Your task to perform on an android device: Open Chrome and go to settings Image 0: 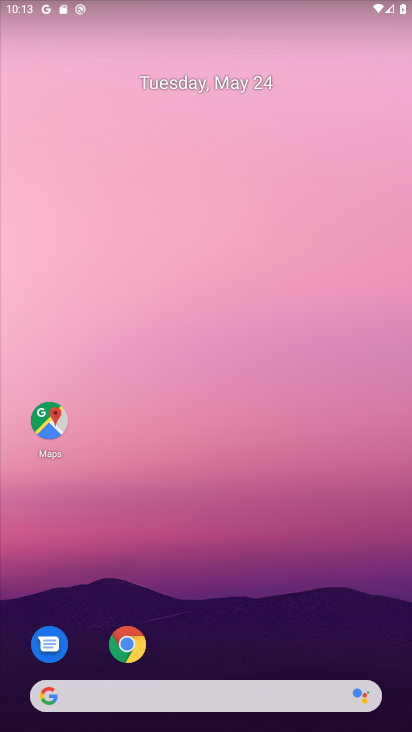
Step 0: click (128, 637)
Your task to perform on an android device: Open Chrome and go to settings Image 1: 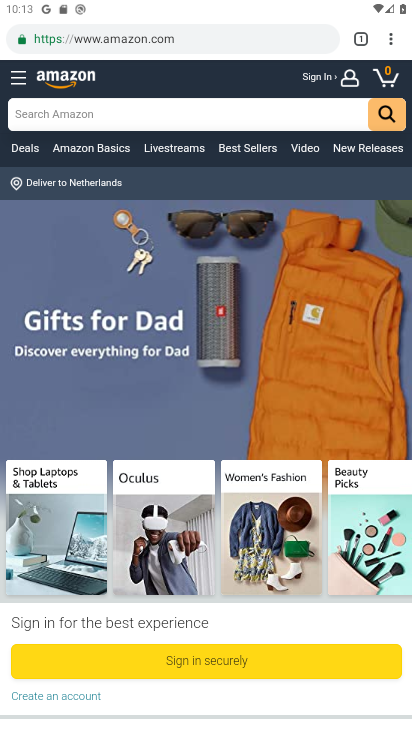
Step 1: click (392, 39)
Your task to perform on an android device: Open Chrome and go to settings Image 2: 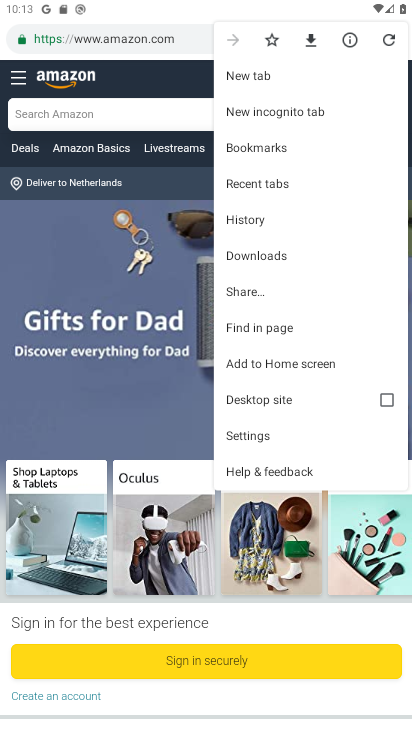
Step 2: click (267, 429)
Your task to perform on an android device: Open Chrome and go to settings Image 3: 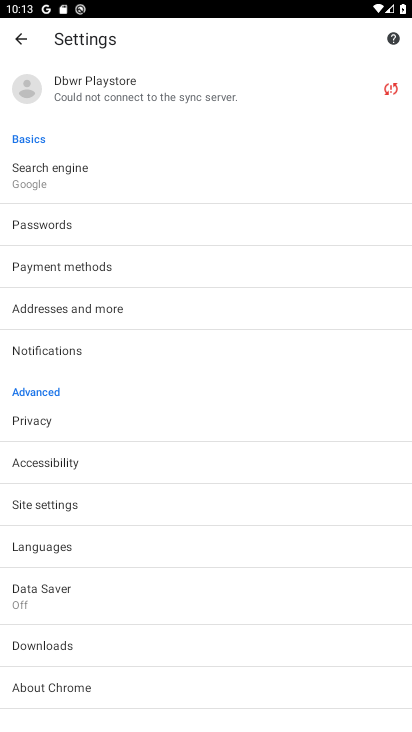
Step 3: task complete